Your task to perform on an android device: Open Maps and search for coffee Image 0: 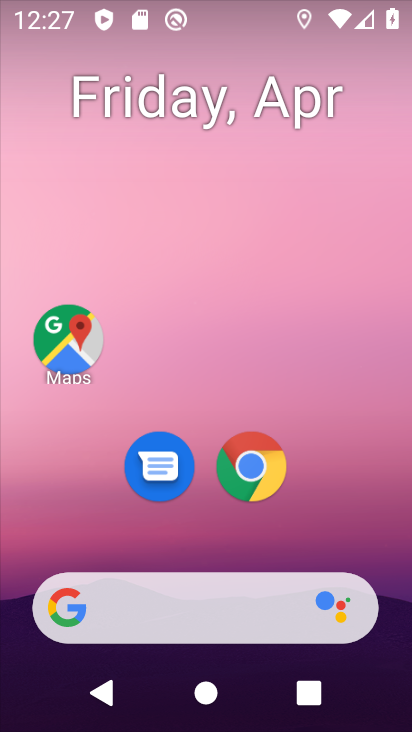
Step 0: drag from (347, 523) to (340, 78)
Your task to perform on an android device: Open Maps and search for coffee Image 1: 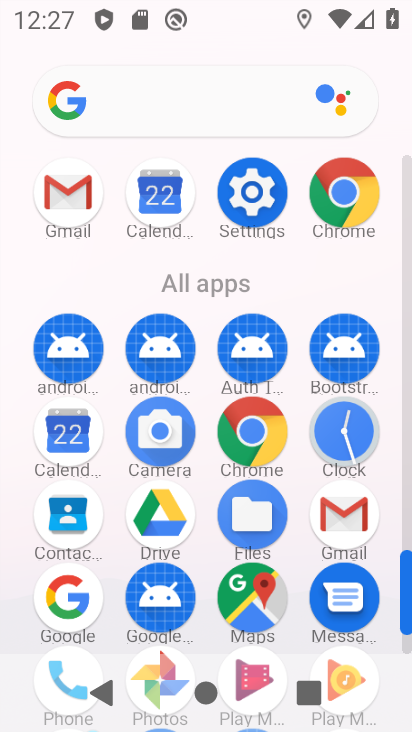
Step 1: click (261, 604)
Your task to perform on an android device: Open Maps and search for coffee Image 2: 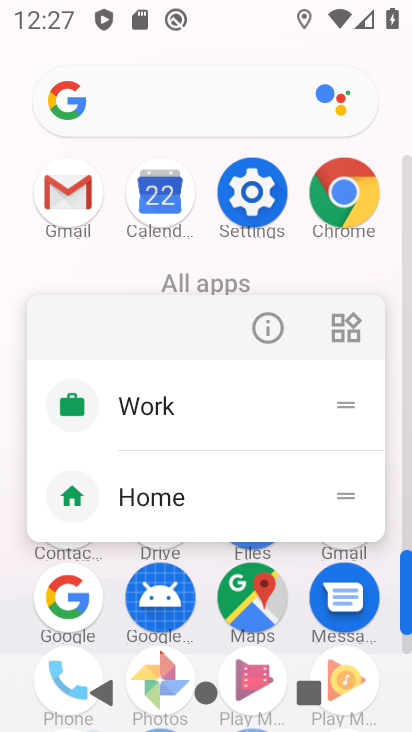
Step 2: click (261, 608)
Your task to perform on an android device: Open Maps and search for coffee Image 3: 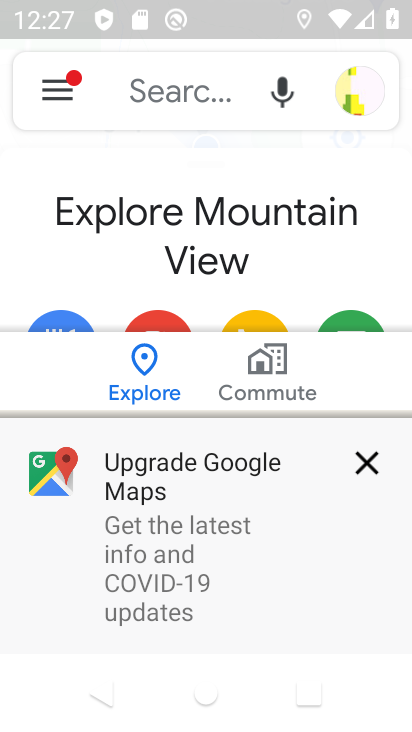
Step 3: click (165, 97)
Your task to perform on an android device: Open Maps and search for coffee Image 4: 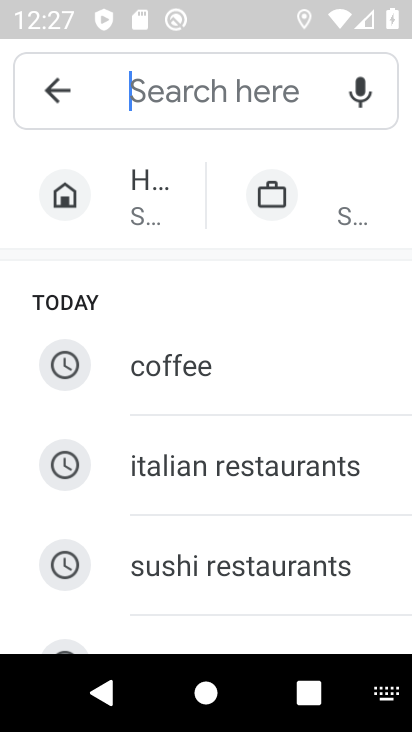
Step 4: click (207, 366)
Your task to perform on an android device: Open Maps and search for coffee Image 5: 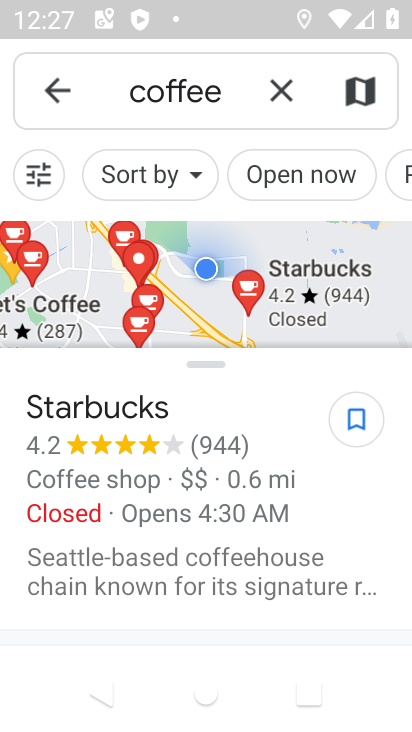
Step 5: task complete